Your task to perform on an android device: toggle translation in the chrome app Image 0: 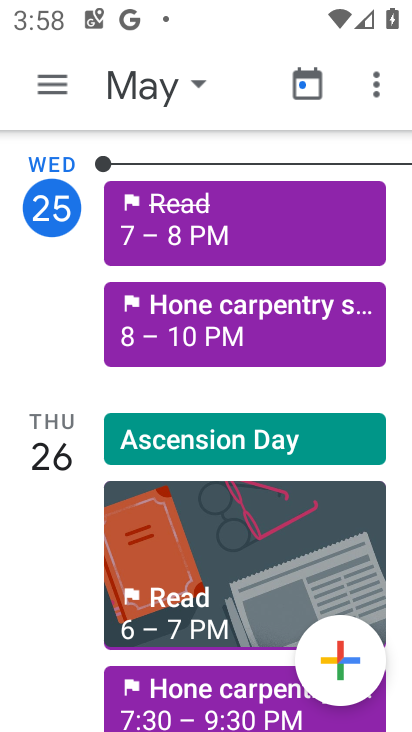
Step 0: press home button
Your task to perform on an android device: toggle translation in the chrome app Image 1: 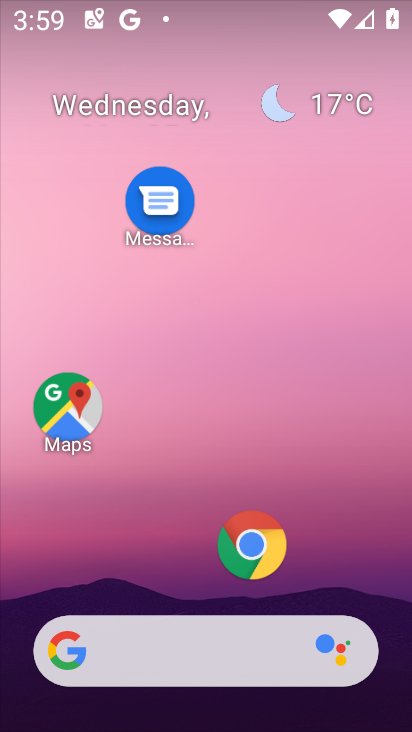
Step 1: click (243, 545)
Your task to perform on an android device: toggle translation in the chrome app Image 2: 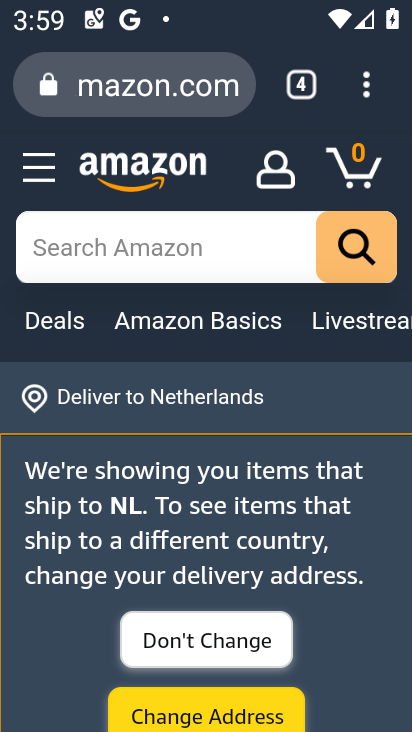
Step 2: click (355, 62)
Your task to perform on an android device: toggle translation in the chrome app Image 3: 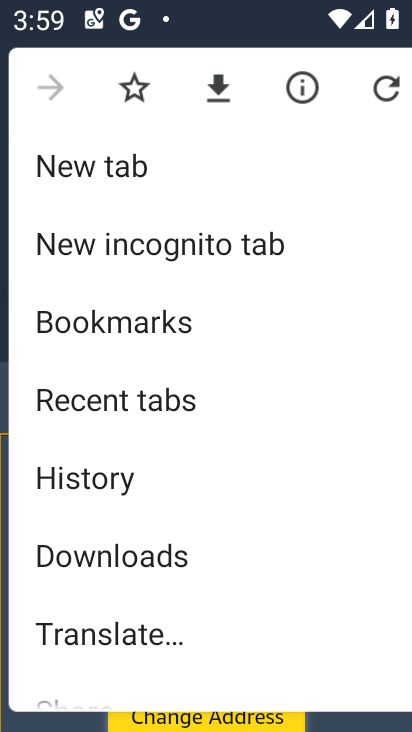
Step 3: drag from (193, 493) to (202, 186)
Your task to perform on an android device: toggle translation in the chrome app Image 4: 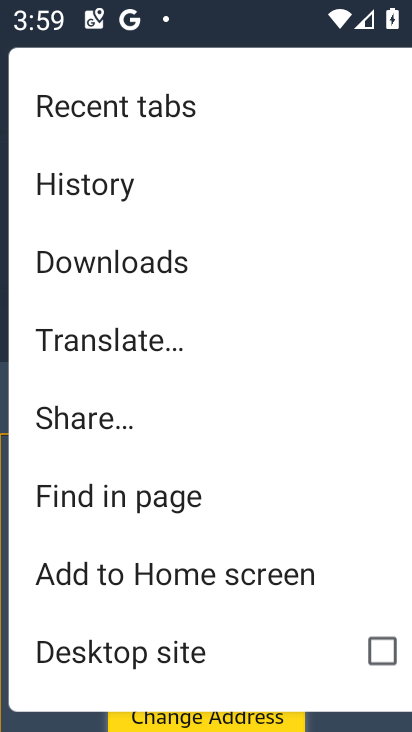
Step 4: click (201, 357)
Your task to perform on an android device: toggle translation in the chrome app Image 5: 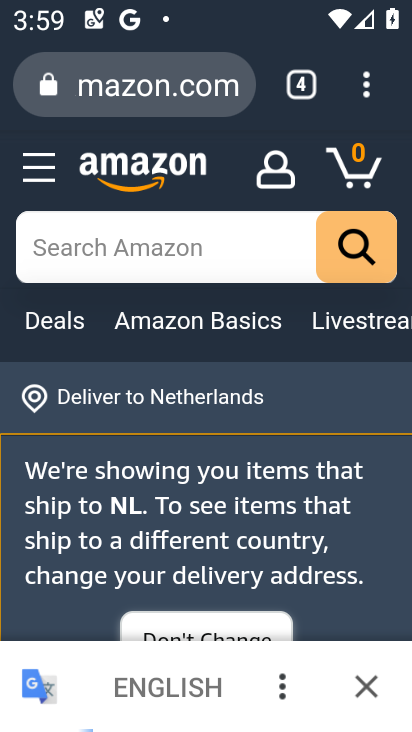
Step 5: click (286, 673)
Your task to perform on an android device: toggle translation in the chrome app Image 6: 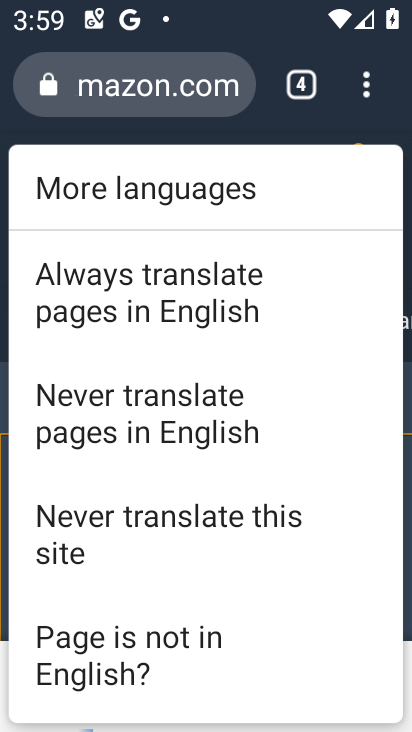
Step 6: click (263, 311)
Your task to perform on an android device: toggle translation in the chrome app Image 7: 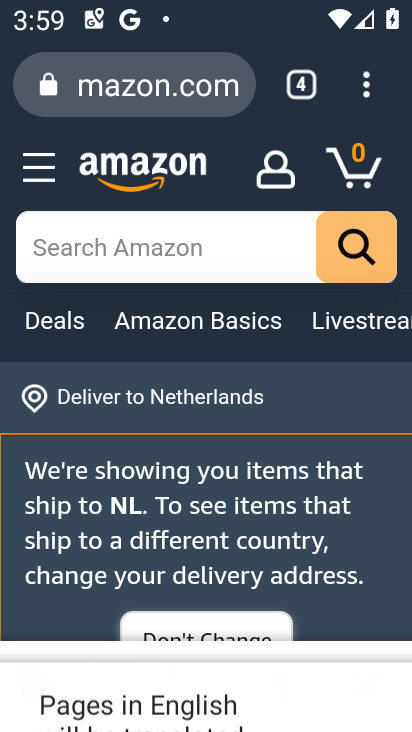
Step 7: task complete